Your task to perform on an android device: Go to internet settings Image 0: 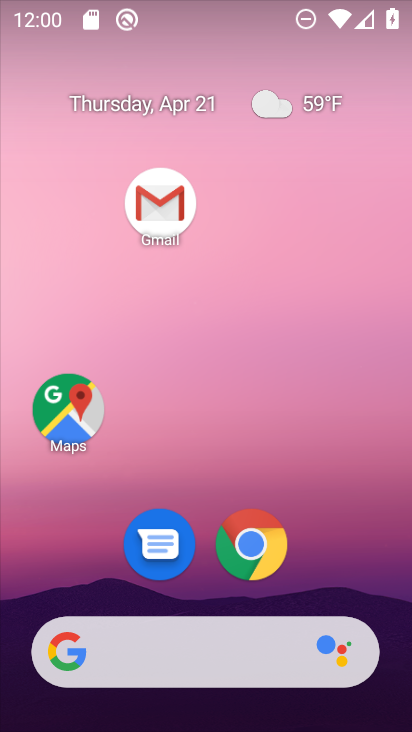
Step 0: drag from (188, 607) to (243, 178)
Your task to perform on an android device: Go to internet settings Image 1: 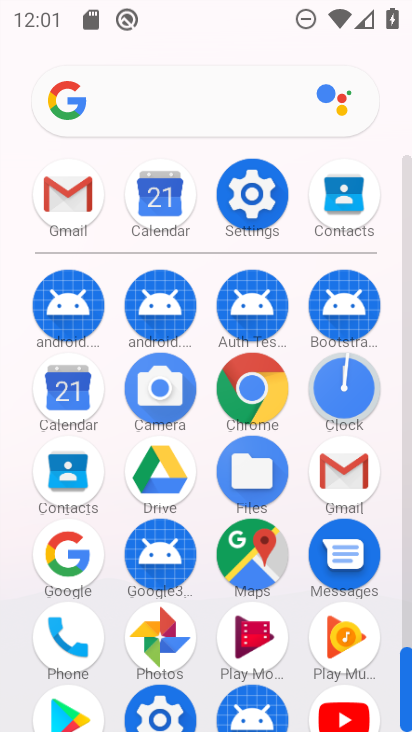
Step 1: click (245, 192)
Your task to perform on an android device: Go to internet settings Image 2: 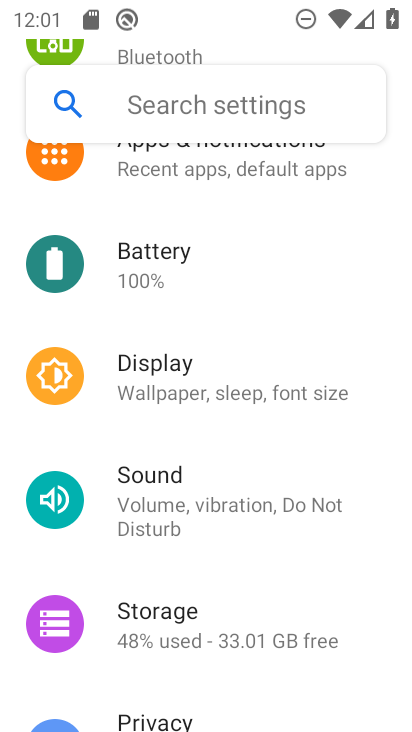
Step 2: drag from (243, 199) to (193, 718)
Your task to perform on an android device: Go to internet settings Image 3: 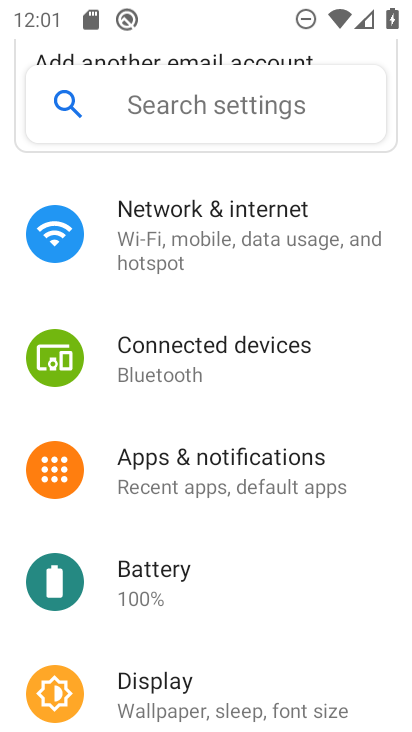
Step 3: drag from (286, 279) to (317, 585)
Your task to perform on an android device: Go to internet settings Image 4: 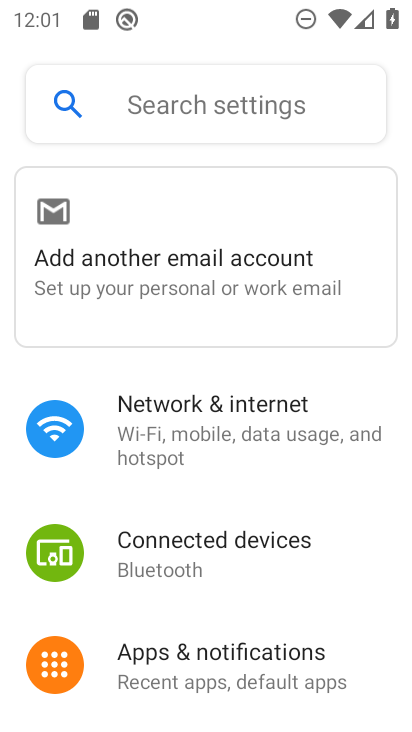
Step 4: click (298, 429)
Your task to perform on an android device: Go to internet settings Image 5: 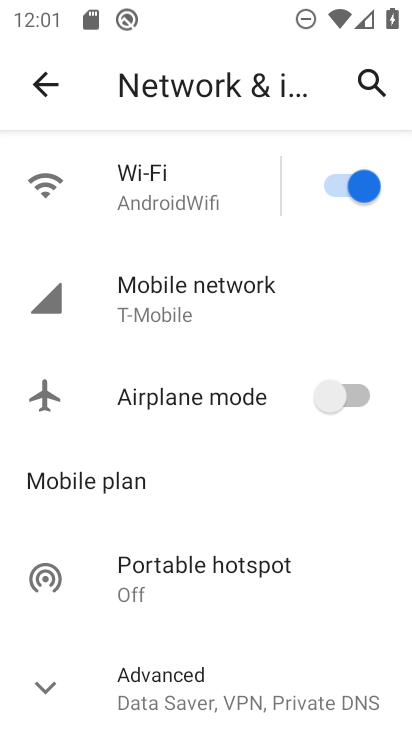
Step 5: task complete